Your task to perform on an android device: Install the Calendar app Image 0: 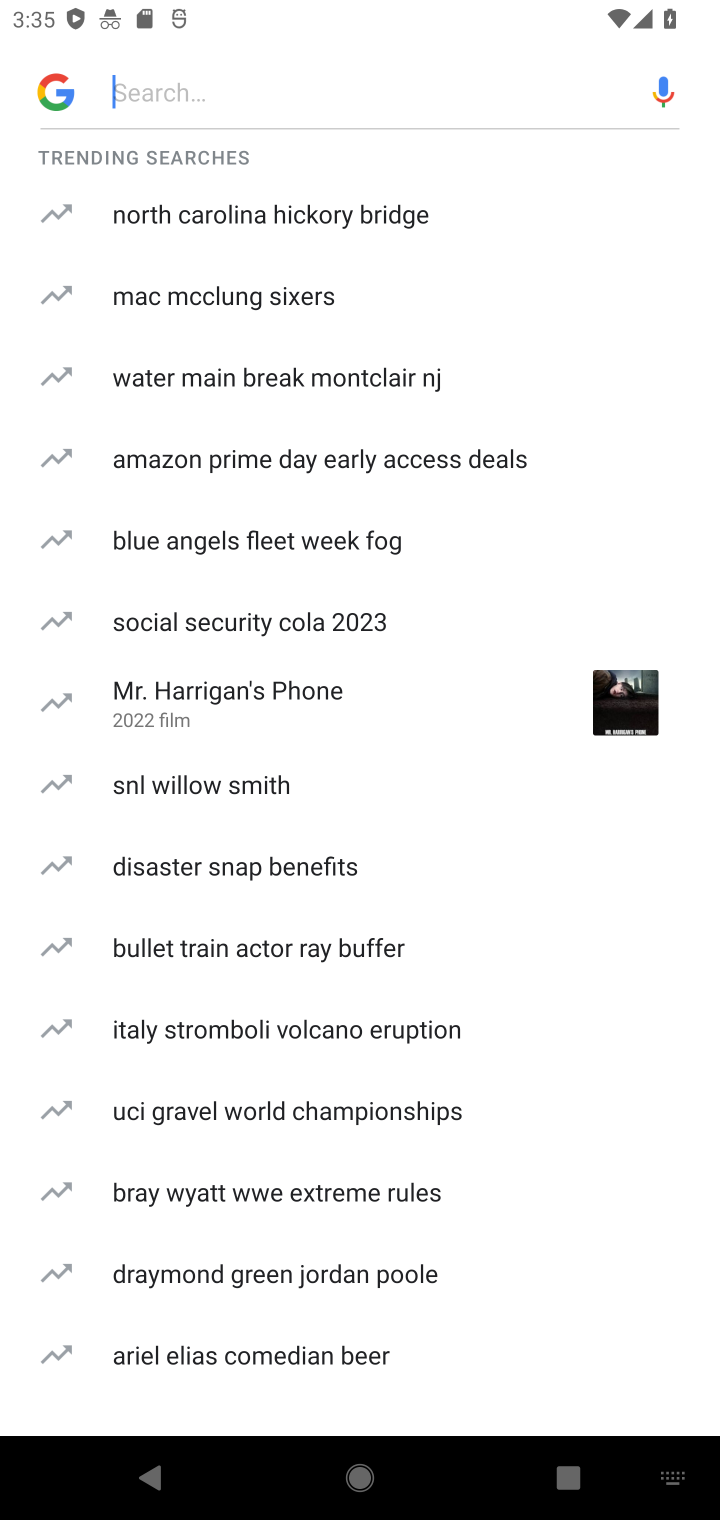
Step 0: press home button
Your task to perform on an android device: Install the Calendar app Image 1: 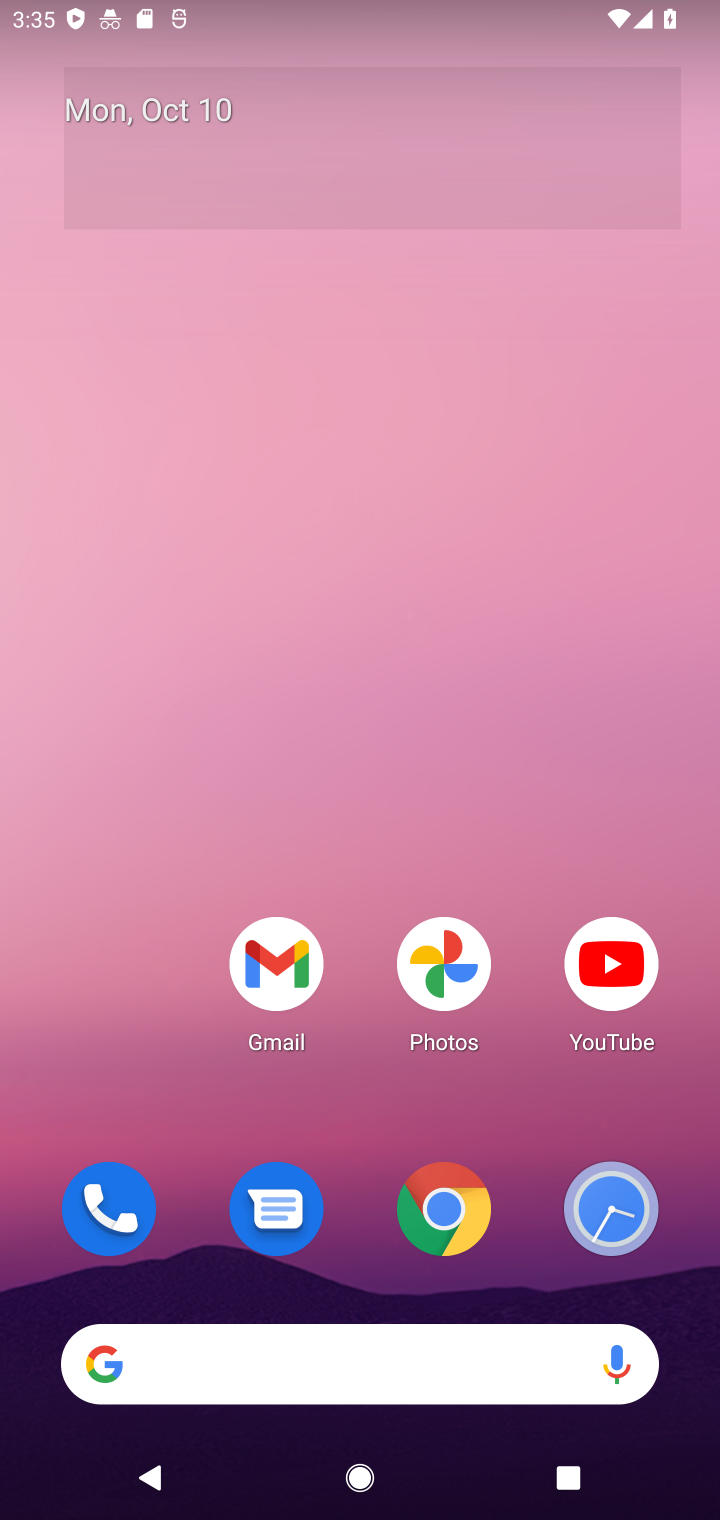
Step 1: drag from (385, 1341) to (397, 216)
Your task to perform on an android device: Install the Calendar app Image 2: 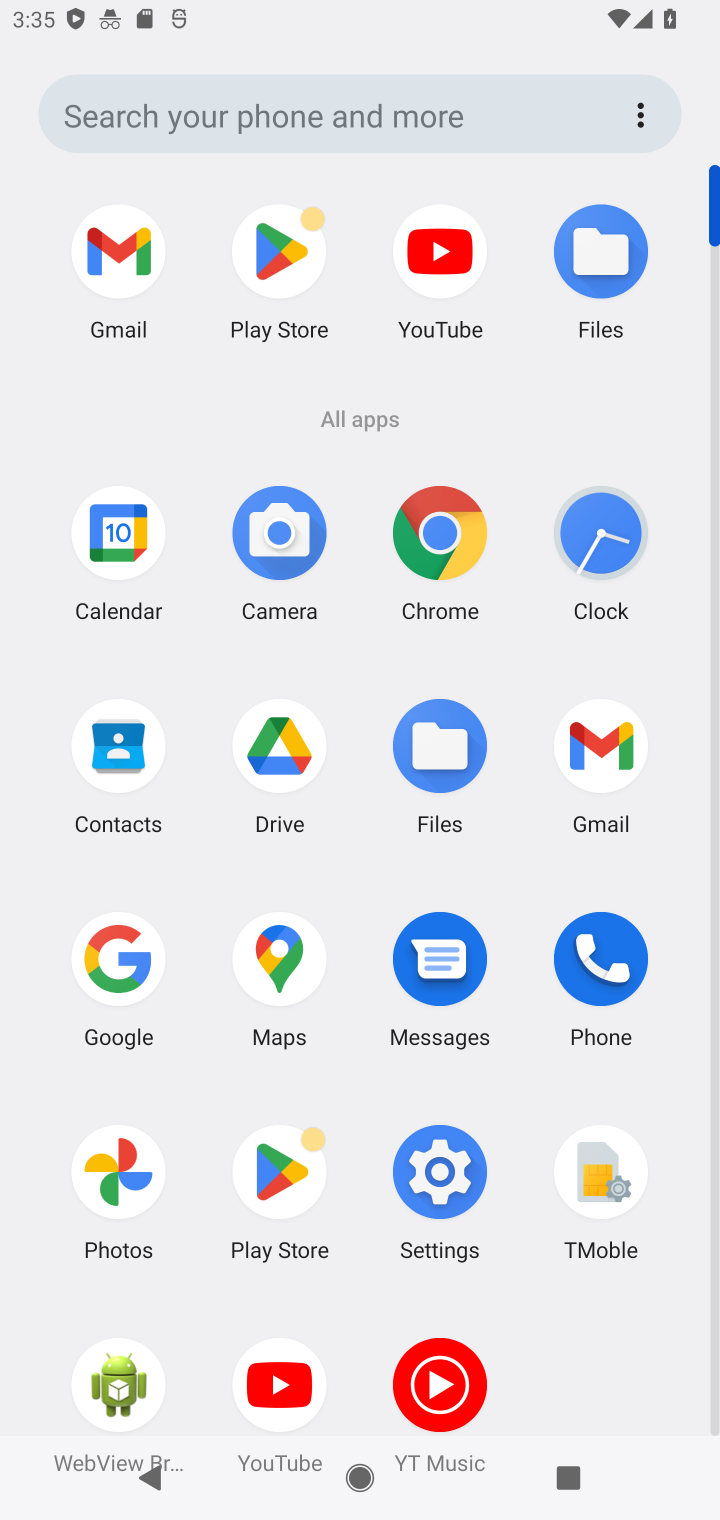
Step 2: click (279, 1182)
Your task to perform on an android device: Install the Calendar app Image 3: 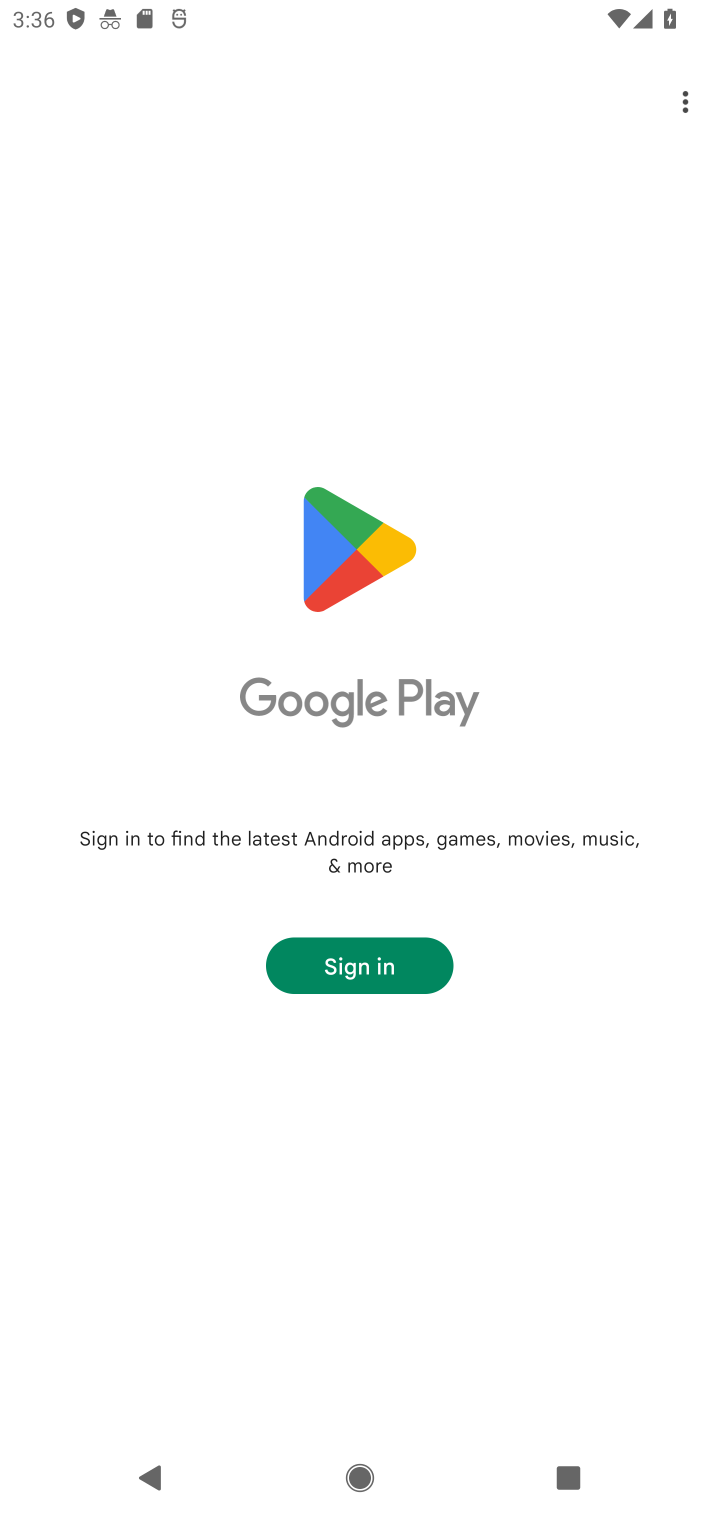
Step 3: task complete